Your task to perform on an android device: Clear the cart on target. Add "acer predator" to the cart on target Image 0: 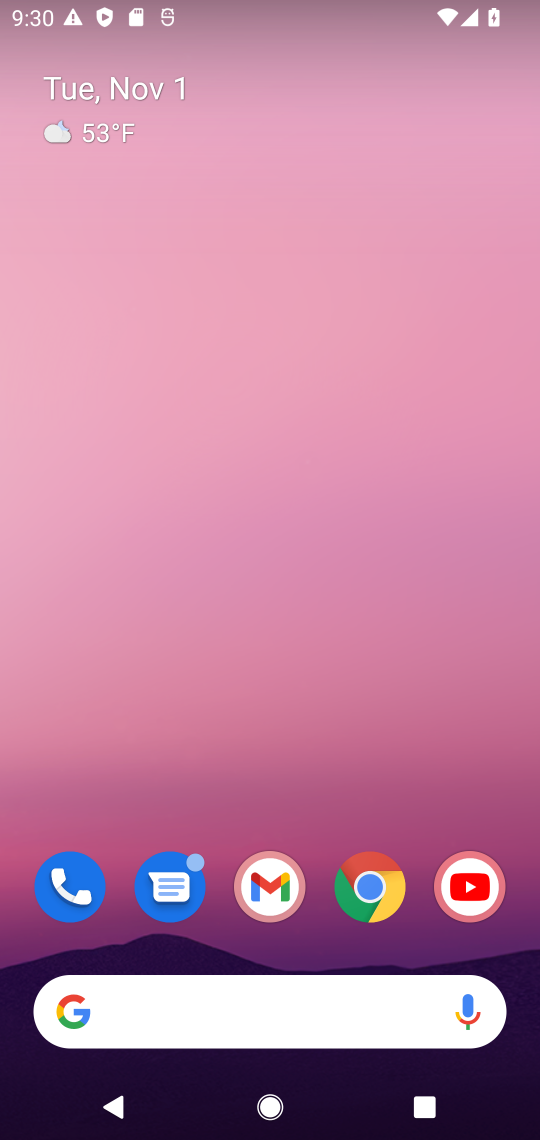
Step 0: drag from (148, 949) to (320, 270)
Your task to perform on an android device: Clear the cart on target. Add "acer predator" to the cart on target Image 1: 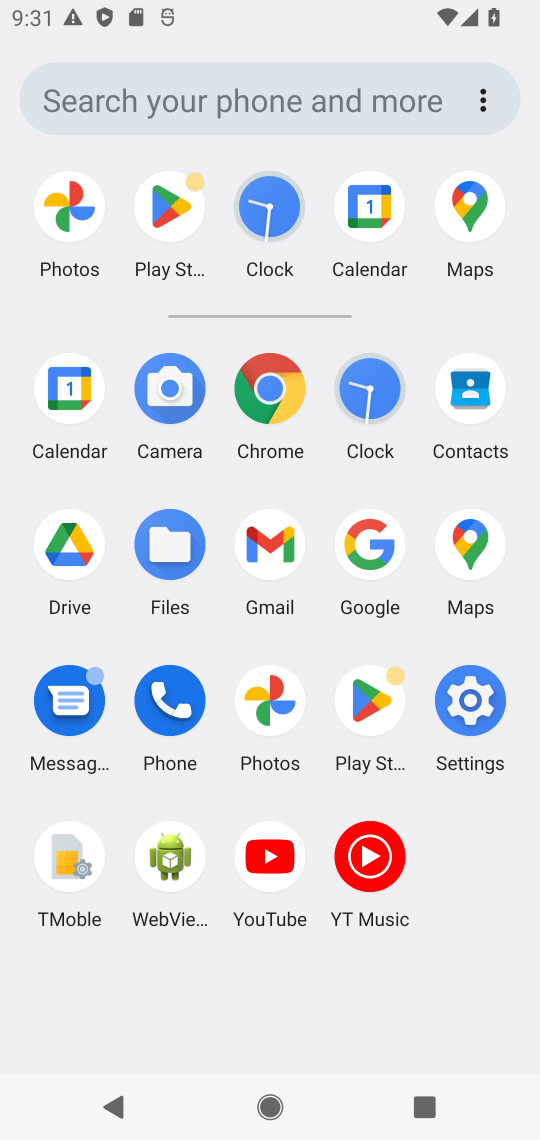
Step 1: click (373, 542)
Your task to perform on an android device: Clear the cart on target. Add "acer predator" to the cart on target Image 2: 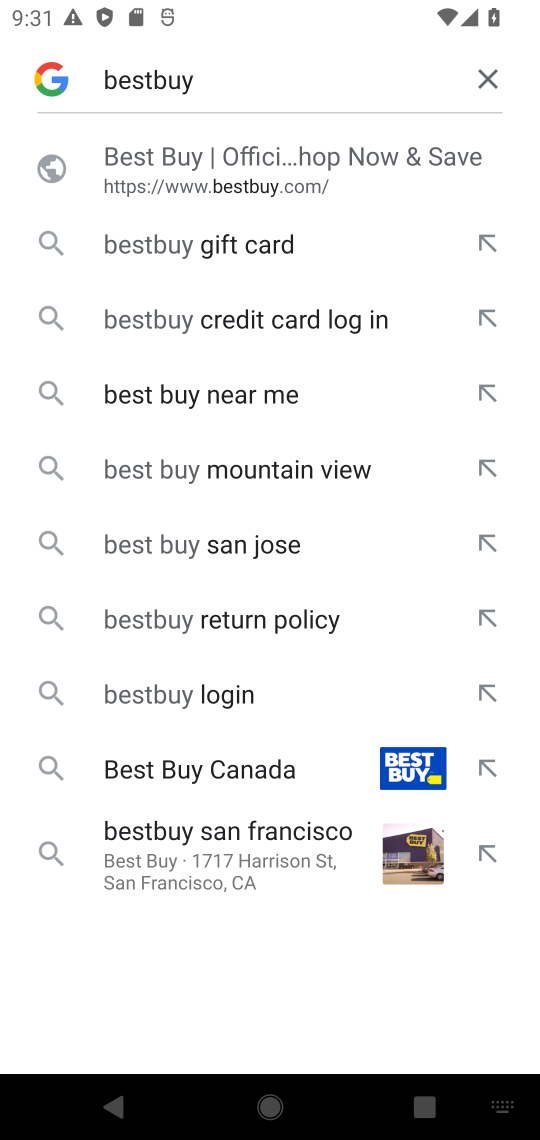
Step 2: click (484, 78)
Your task to perform on an android device: Clear the cart on target. Add "acer predator" to the cart on target Image 3: 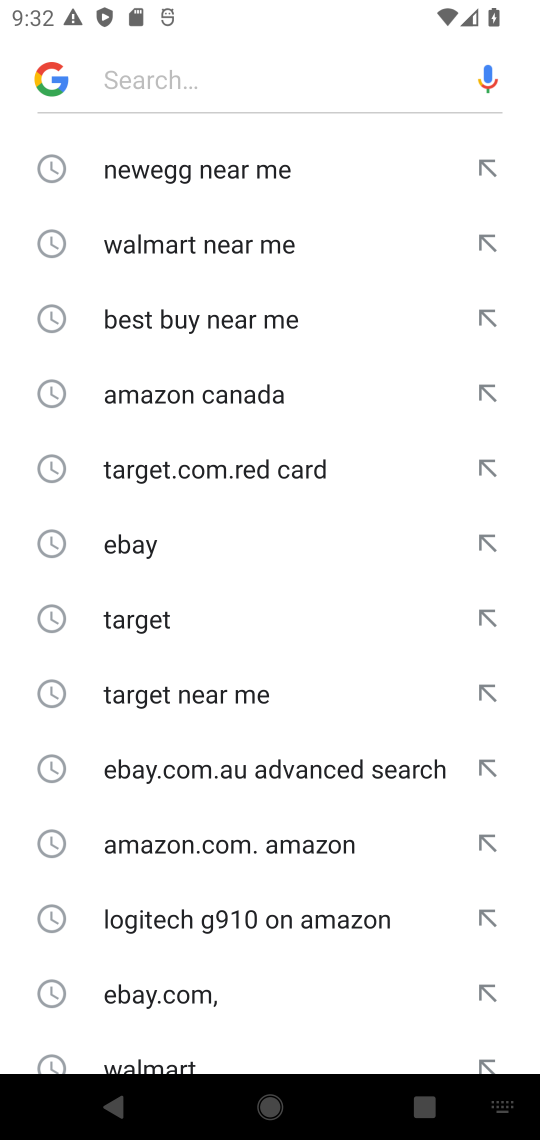
Step 3: click (179, 76)
Your task to perform on an android device: Clear the cart on target. Add "acer predator" to the cart on target Image 4: 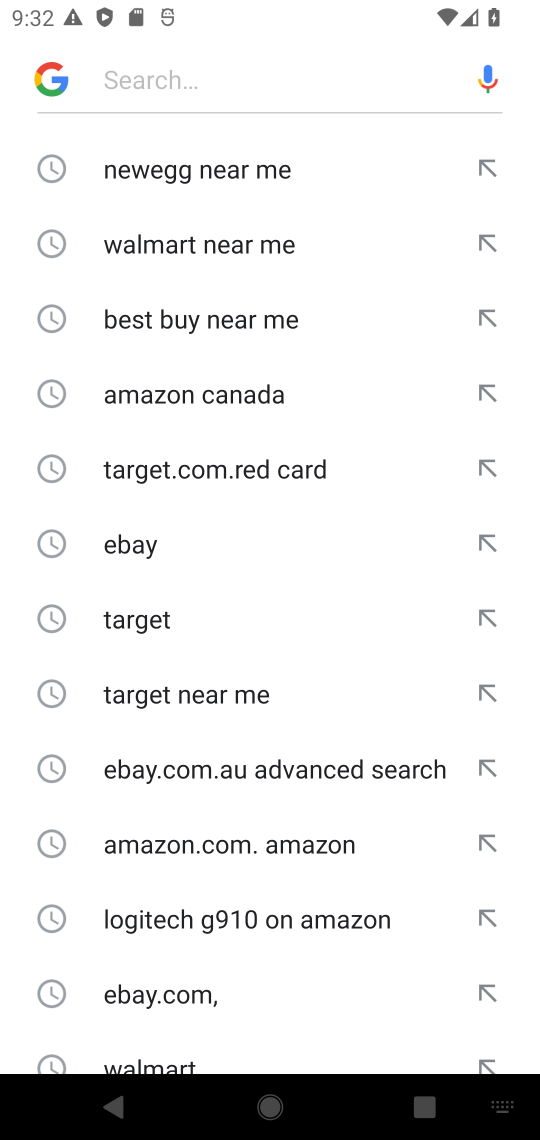
Step 4: type "target "
Your task to perform on an android device: Clear the cart on target. Add "acer predator" to the cart on target Image 5: 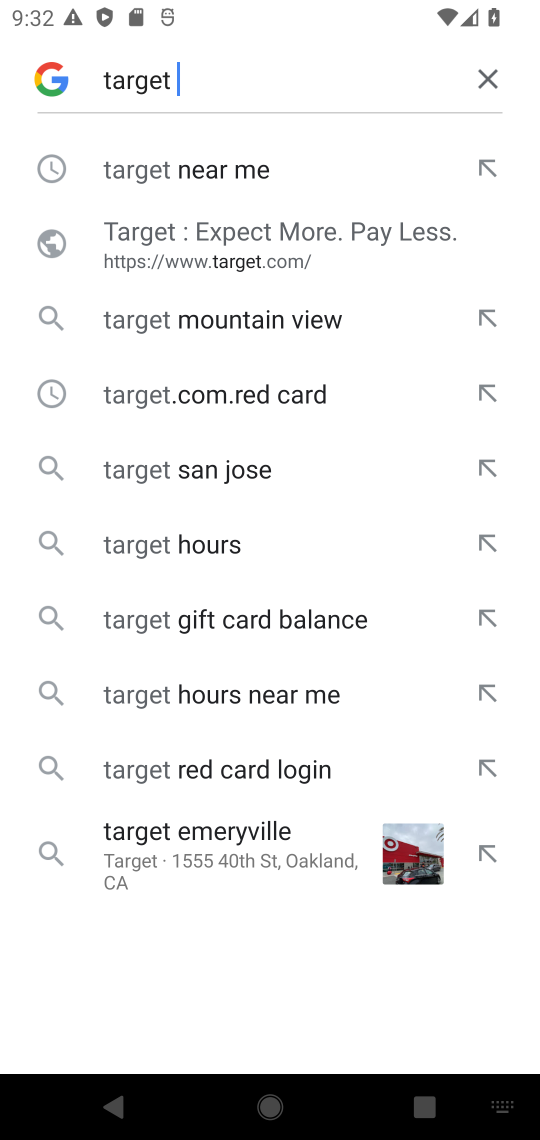
Step 5: click (138, 175)
Your task to perform on an android device: Clear the cart on target. Add "acer predator" to the cart on target Image 6: 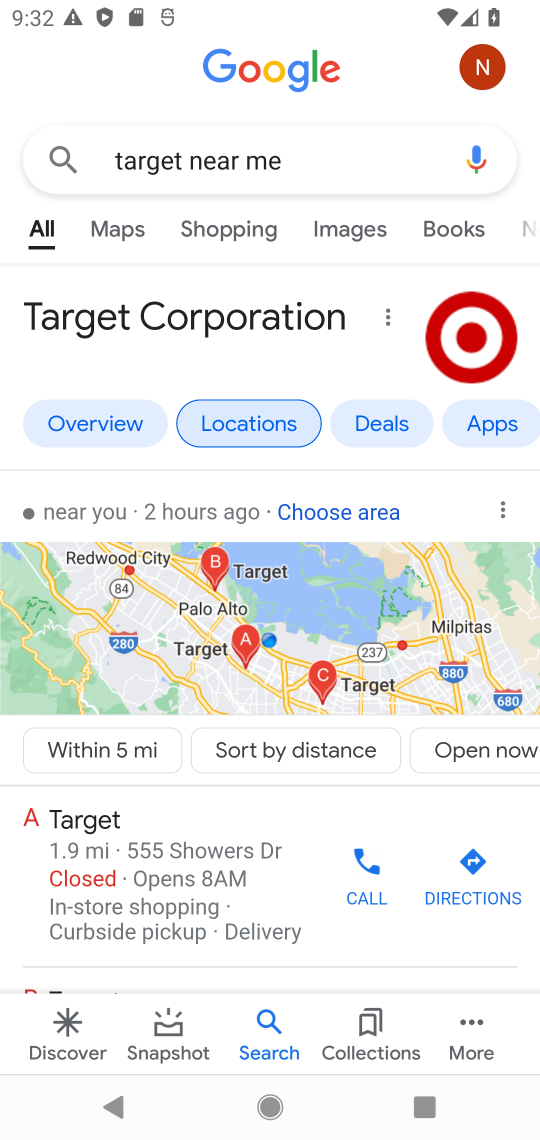
Step 6: drag from (122, 876) to (288, 258)
Your task to perform on an android device: Clear the cart on target. Add "acer predator" to the cart on target Image 7: 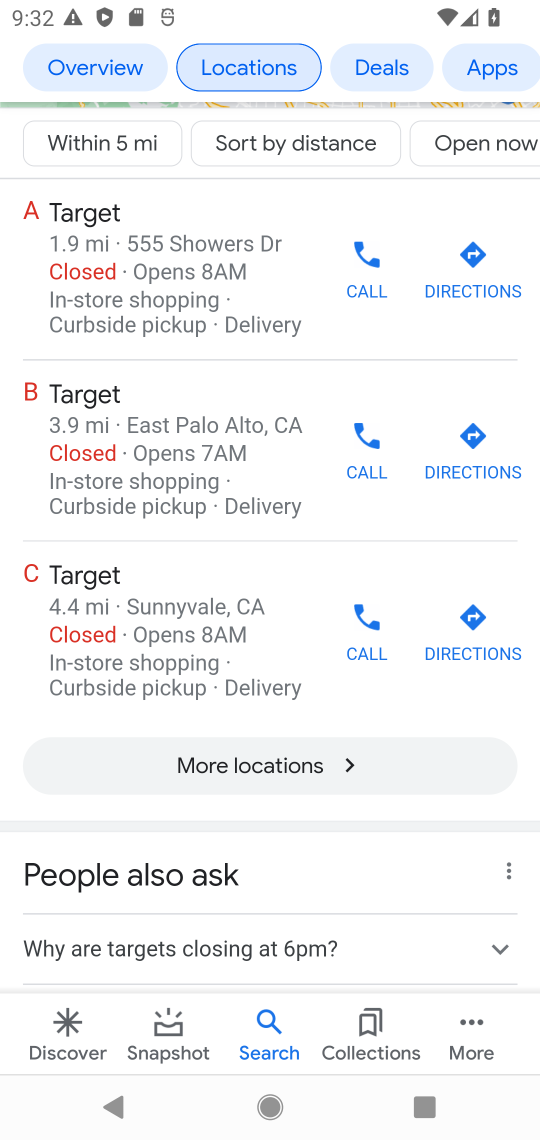
Step 7: drag from (150, 802) to (305, 184)
Your task to perform on an android device: Clear the cart on target. Add "acer predator" to the cart on target Image 8: 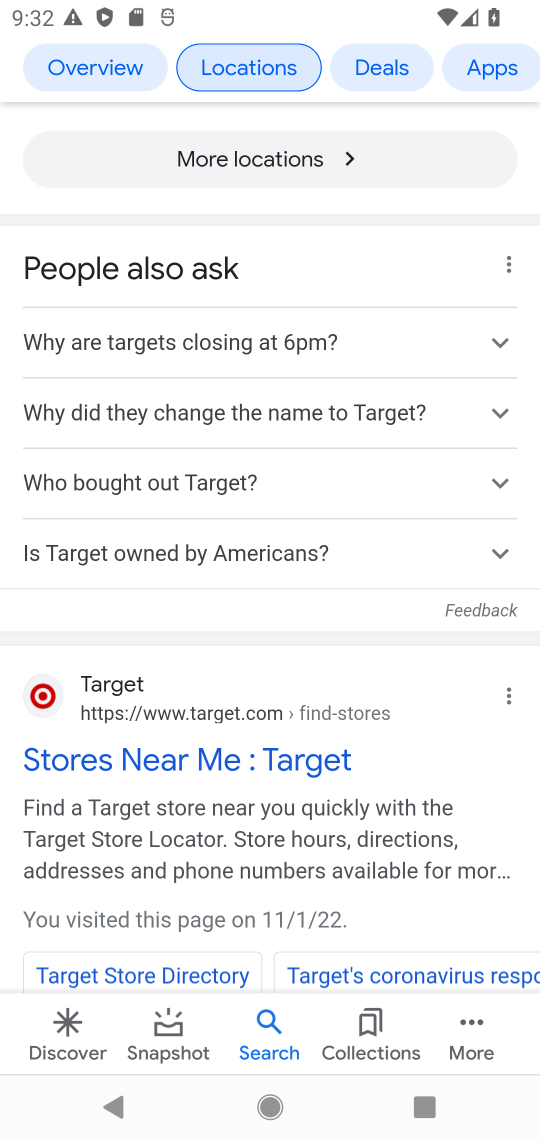
Step 8: click (41, 685)
Your task to perform on an android device: Clear the cart on target. Add "acer predator" to the cart on target Image 9: 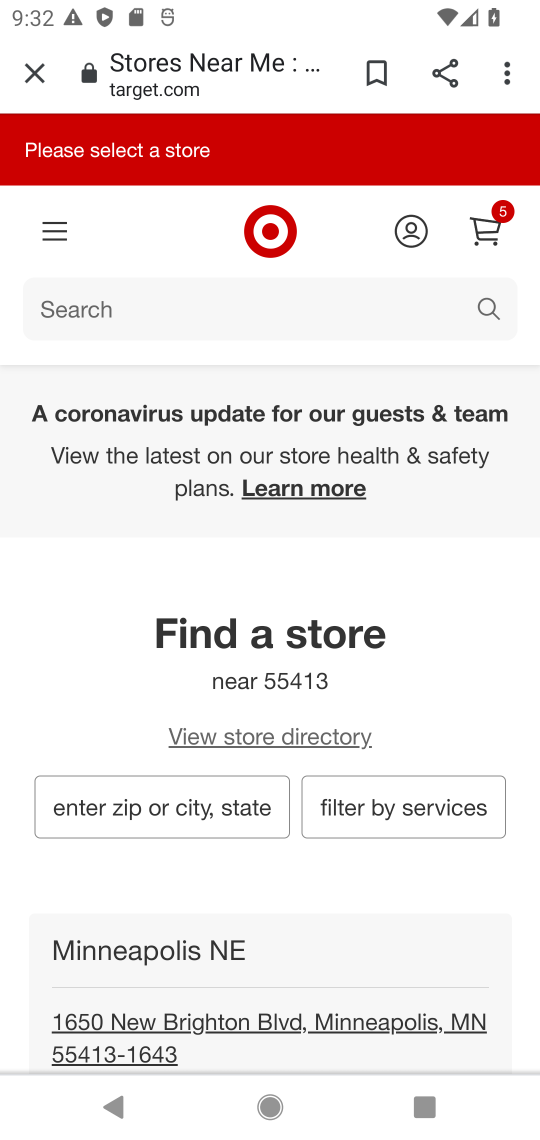
Step 9: click (238, 307)
Your task to perform on an android device: Clear the cart on target. Add "acer predator" to the cart on target Image 10: 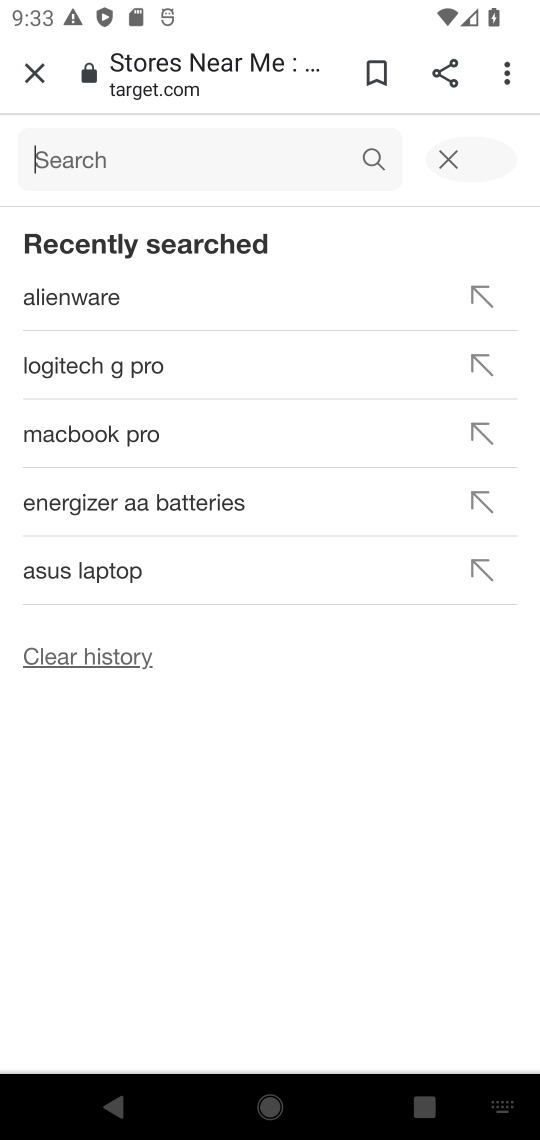
Step 10: click (186, 142)
Your task to perform on an android device: Clear the cart on target. Add "acer predator" to the cart on target Image 11: 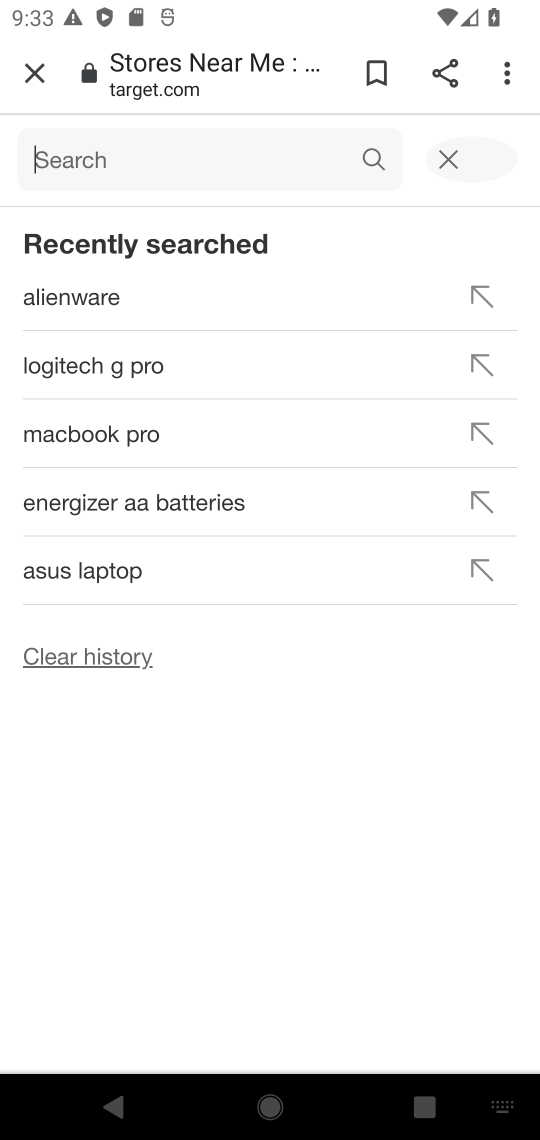
Step 11: type "acer predator "
Your task to perform on an android device: Clear the cart on target. Add "acer predator" to the cart on target Image 12: 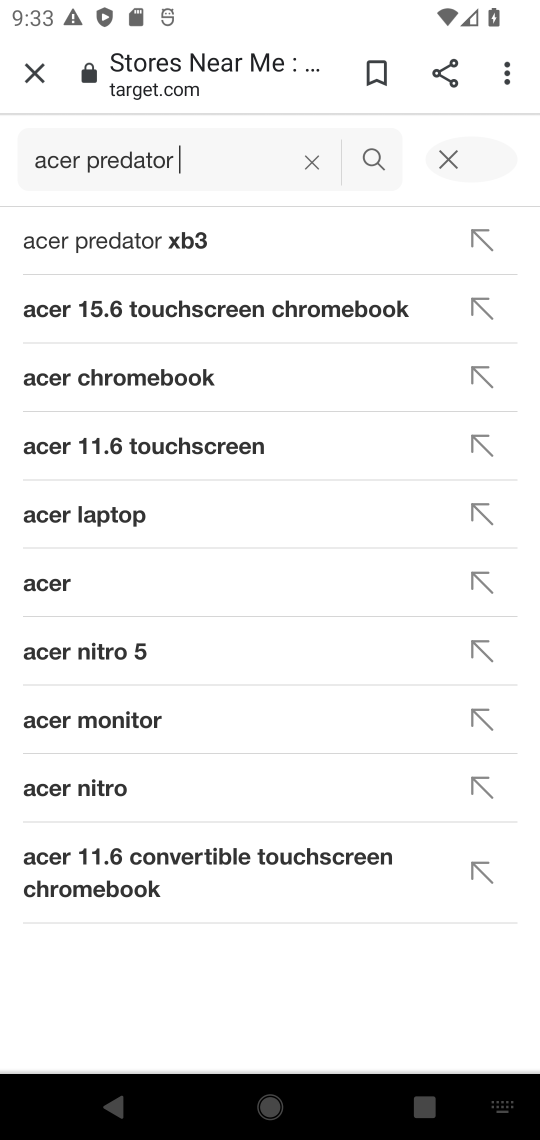
Step 12: click (153, 234)
Your task to perform on an android device: Clear the cart on target. Add "acer predator" to the cart on target Image 13: 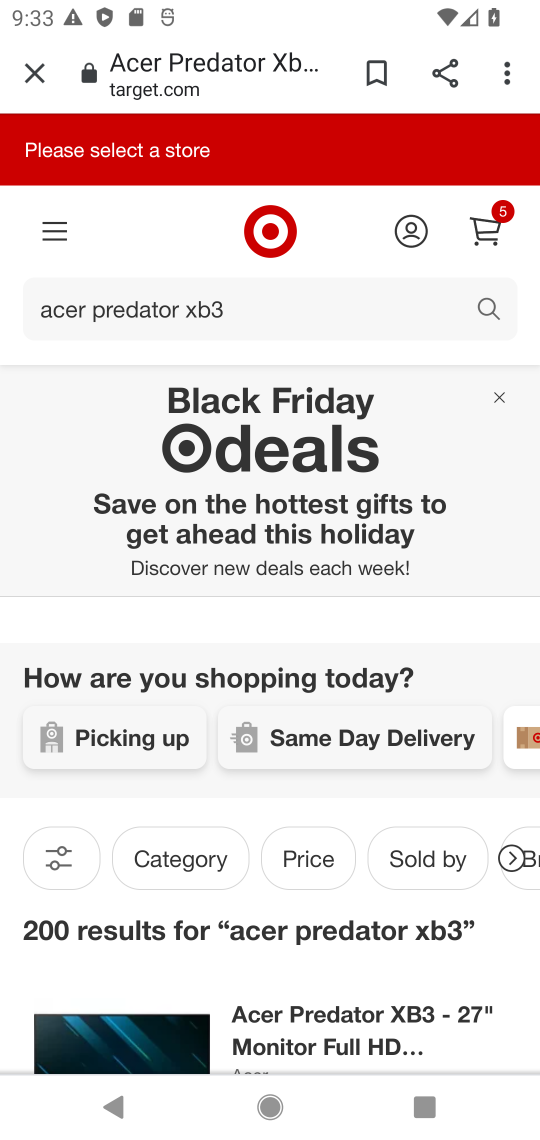
Step 13: drag from (180, 949) to (270, 344)
Your task to perform on an android device: Clear the cart on target. Add "acer predator" to the cart on target Image 14: 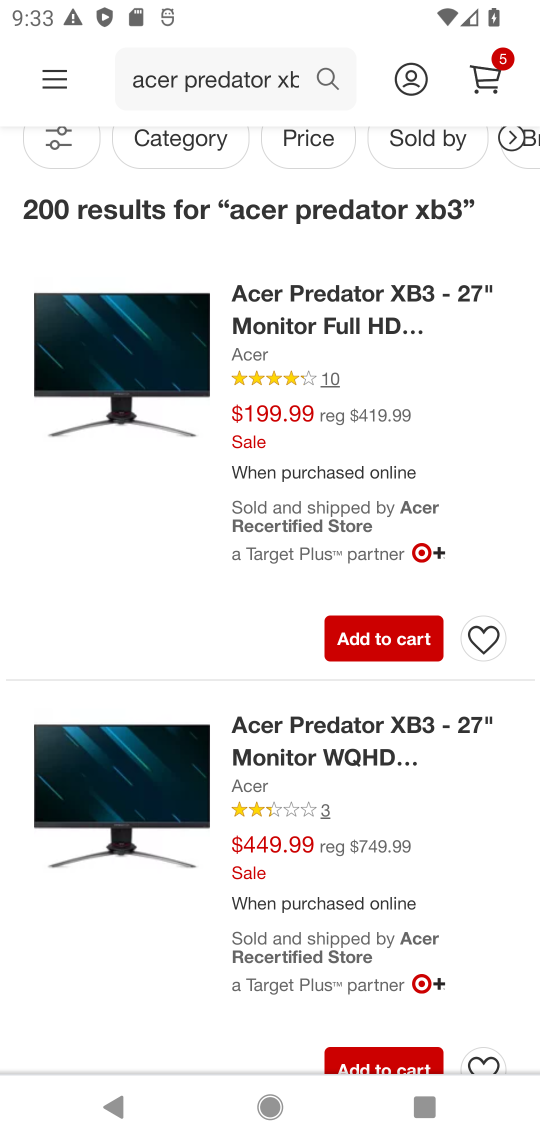
Step 14: click (404, 633)
Your task to perform on an android device: Clear the cart on target. Add "acer predator" to the cart on target Image 15: 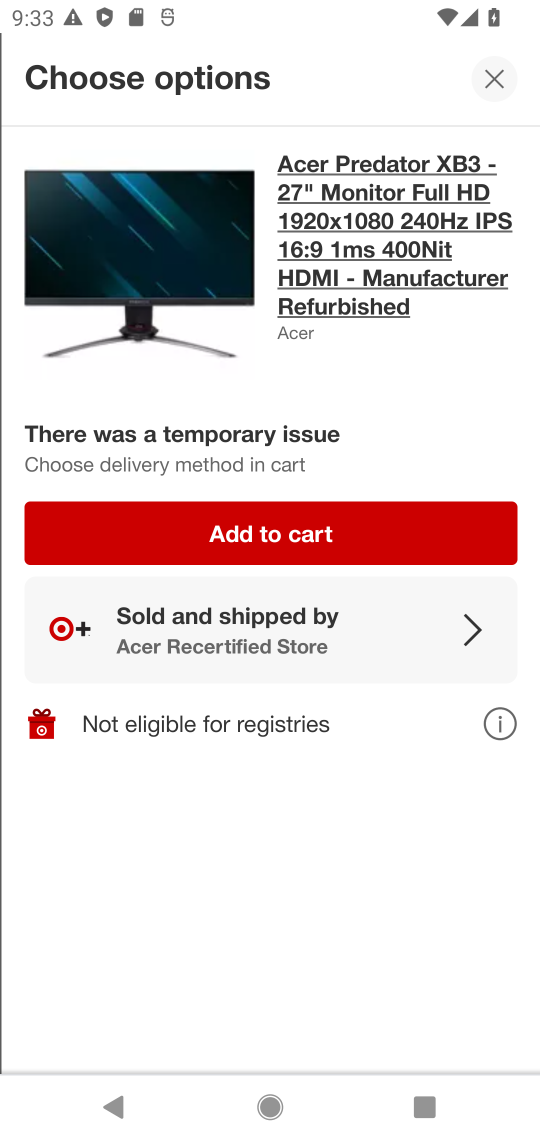
Step 15: click (344, 517)
Your task to perform on an android device: Clear the cart on target. Add "acer predator" to the cart on target Image 16: 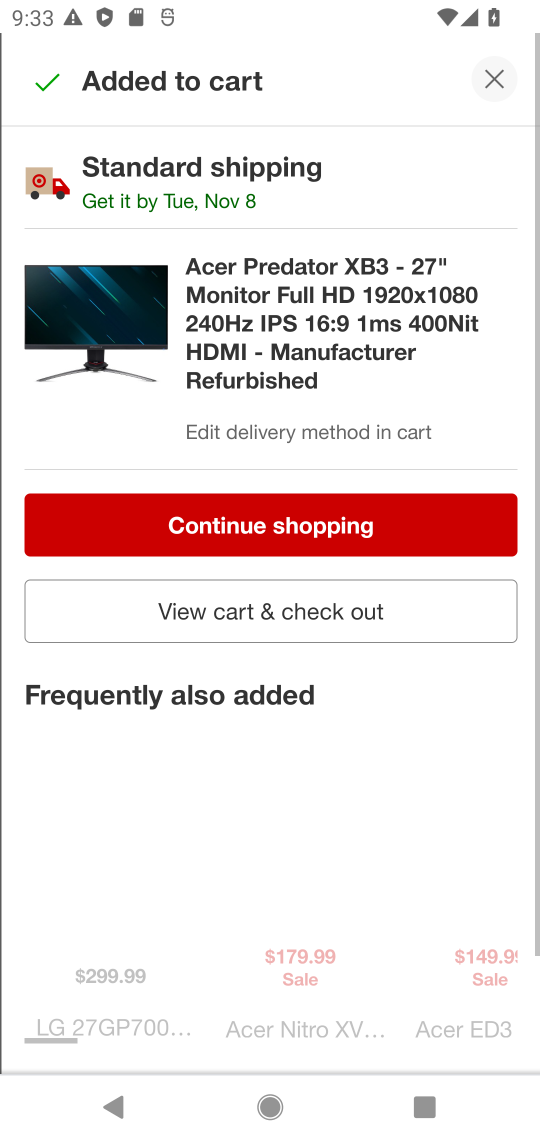
Step 16: task complete